Your task to perform on an android device: Open calendar and show me the first week of next month Image 0: 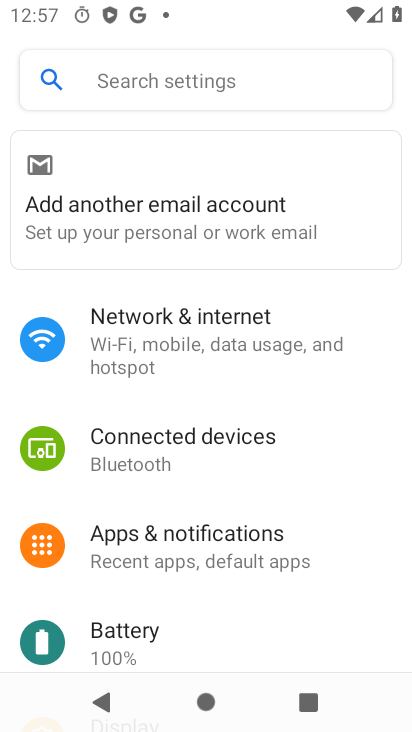
Step 0: press home button
Your task to perform on an android device: Open calendar and show me the first week of next month Image 1: 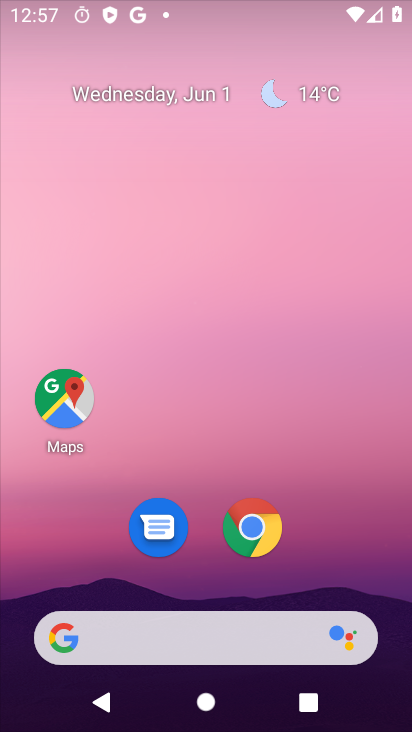
Step 1: drag from (225, 640) to (317, 161)
Your task to perform on an android device: Open calendar and show me the first week of next month Image 2: 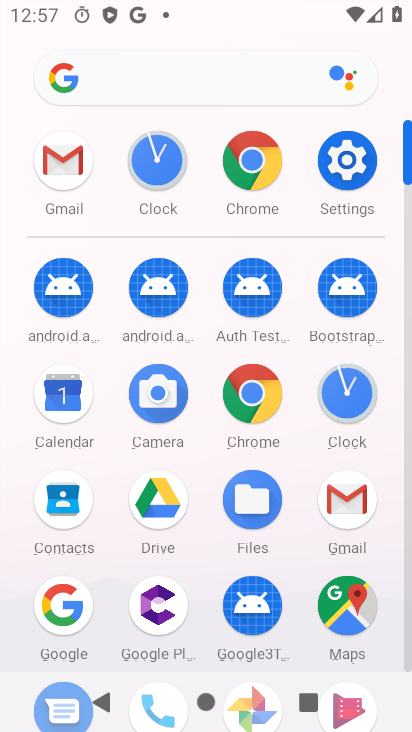
Step 2: drag from (221, 543) to (224, 410)
Your task to perform on an android device: Open calendar and show me the first week of next month Image 3: 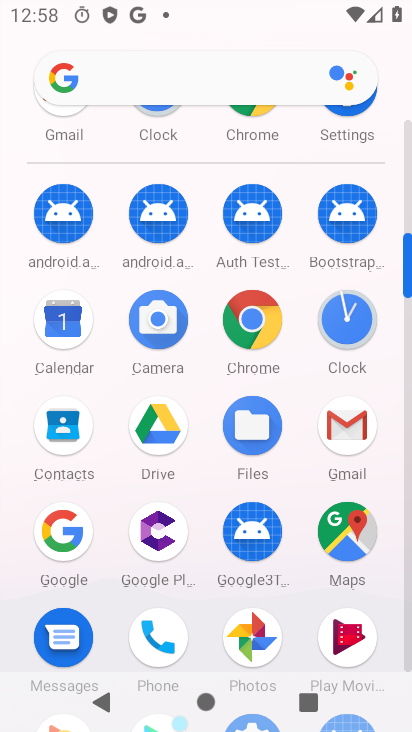
Step 3: click (66, 337)
Your task to perform on an android device: Open calendar and show me the first week of next month Image 4: 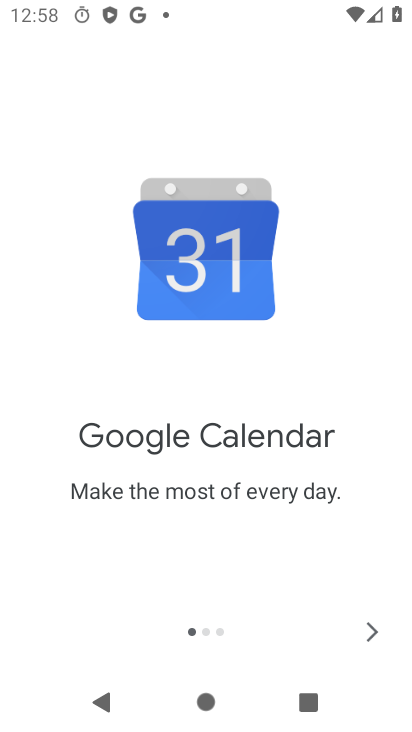
Step 4: click (372, 637)
Your task to perform on an android device: Open calendar and show me the first week of next month Image 5: 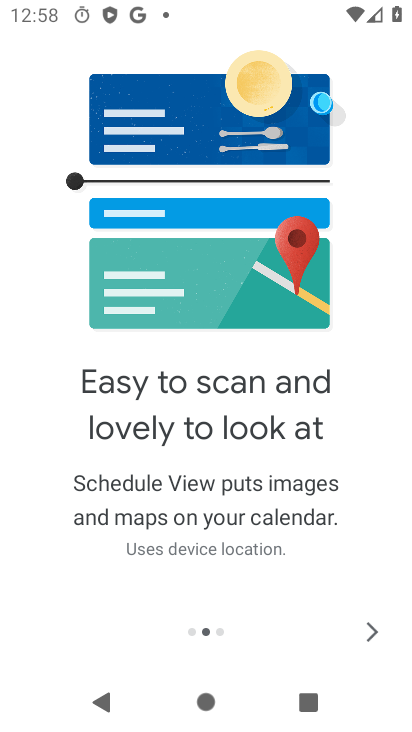
Step 5: click (373, 634)
Your task to perform on an android device: Open calendar and show me the first week of next month Image 6: 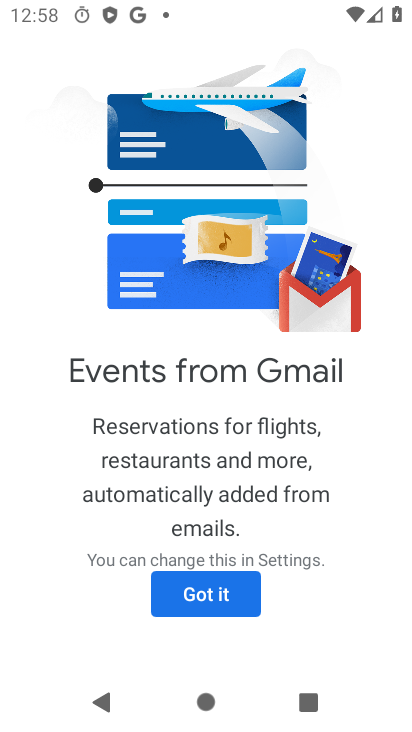
Step 6: click (230, 594)
Your task to perform on an android device: Open calendar and show me the first week of next month Image 7: 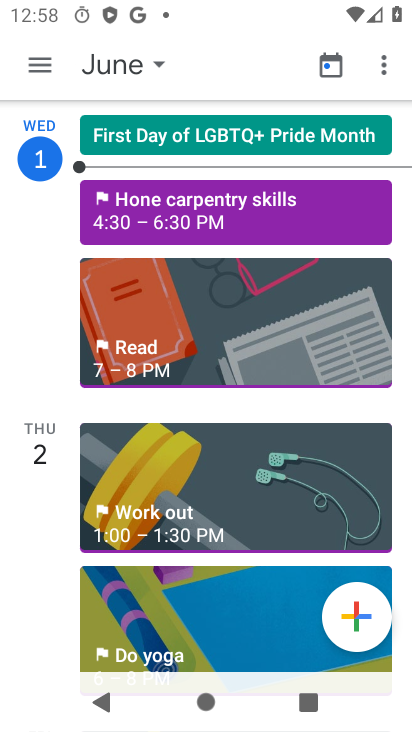
Step 7: task complete